Your task to perform on an android device: toggle translation in the chrome app Image 0: 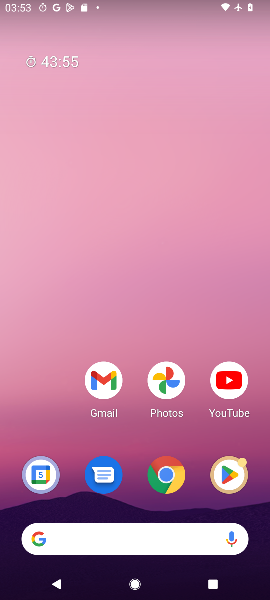
Step 0: press home button
Your task to perform on an android device: toggle translation in the chrome app Image 1: 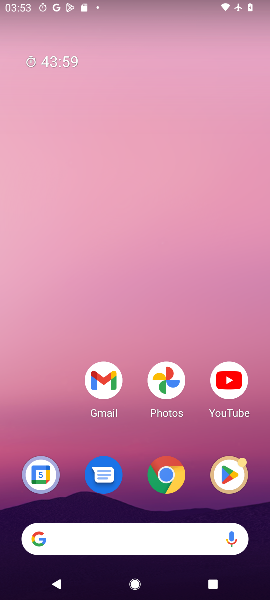
Step 1: drag from (47, 436) to (53, 238)
Your task to perform on an android device: toggle translation in the chrome app Image 2: 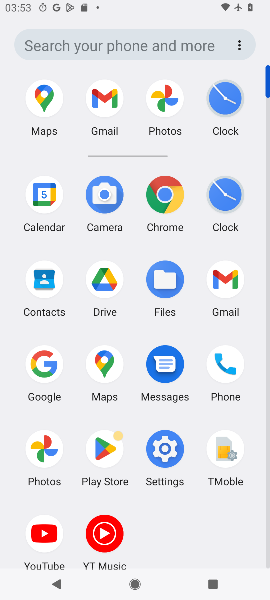
Step 2: click (170, 195)
Your task to perform on an android device: toggle translation in the chrome app Image 3: 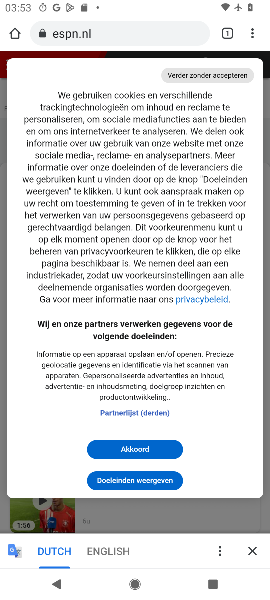
Step 3: click (252, 33)
Your task to perform on an android device: toggle translation in the chrome app Image 4: 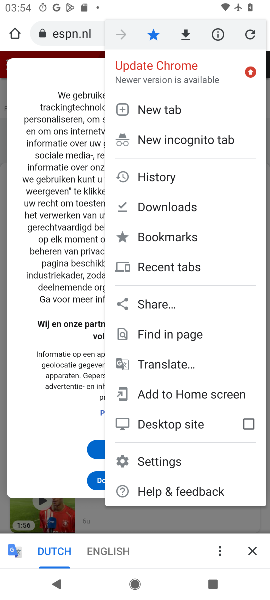
Step 4: click (172, 459)
Your task to perform on an android device: toggle translation in the chrome app Image 5: 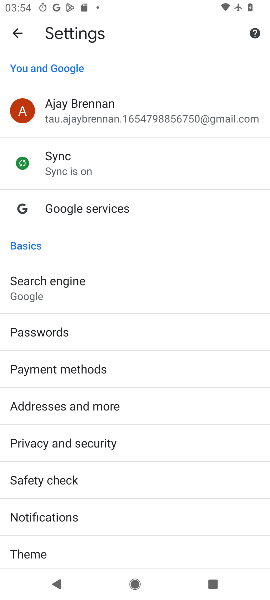
Step 5: drag from (194, 494) to (195, 436)
Your task to perform on an android device: toggle translation in the chrome app Image 6: 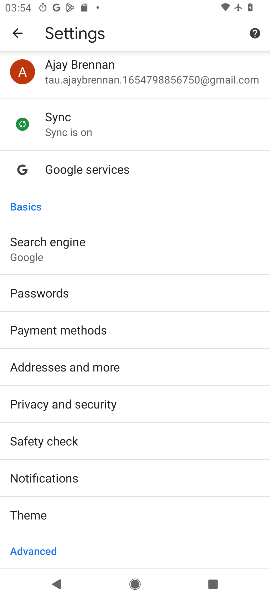
Step 6: drag from (179, 509) to (180, 408)
Your task to perform on an android device: toggle translation in the chrome app Image 7: 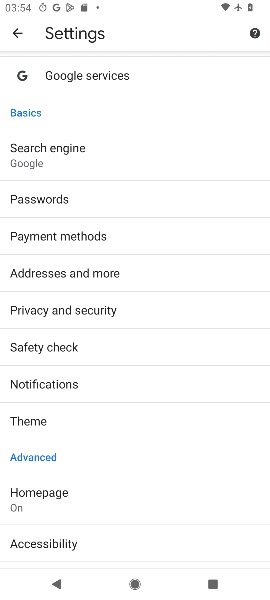
Step 7: drag from (170, 521) to (168, 406)
Your task to perform on an android device: toggle translation in the chrome app Image 8: 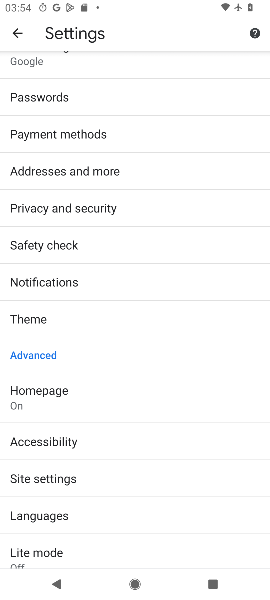
Step 8: drag from (151, 512) to (156, 420)
Your task to perform on an android device: toggle translation in the chrome app Image 9: 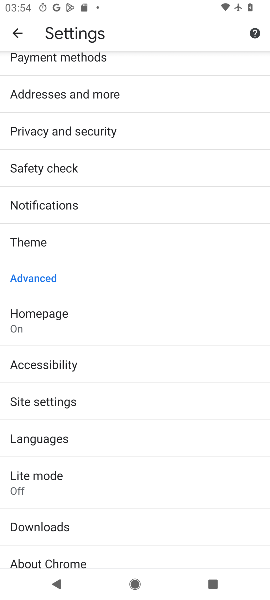
Step 9: click (122, 434)
Your task to perform on an android device: toggle translation in the chrome app Image 10: 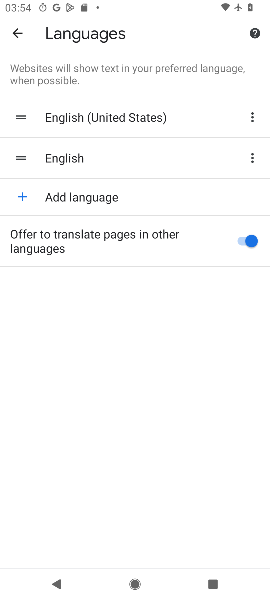
Step 10: click (245, 239)
Your task to perform on an android device: toggle translation in the chrome app Image 11: 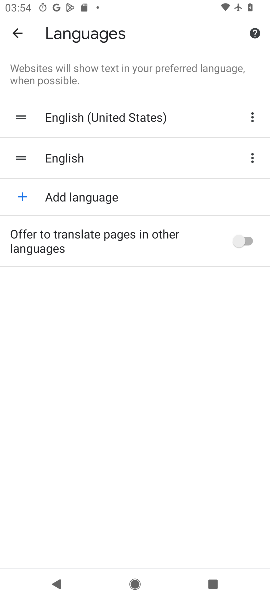
Step 11: task complete